Your task to perform on an android device: What's on my calendar tomorrow? Image 0: 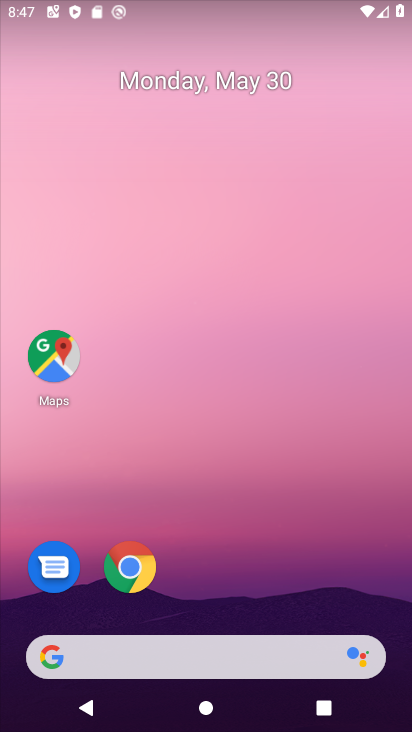
Step 0: click (152, 65)
Your task to perform on an android device: What's on my calendar tomorrow? Image 1: 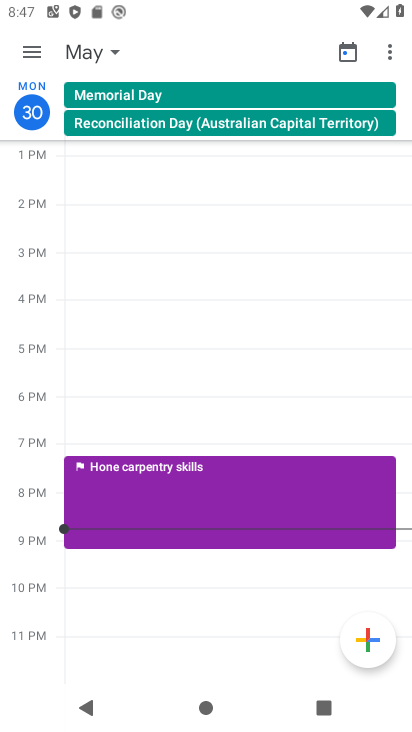
Step 1: click (79, 43)
Your task to perform on an android device: What's on my calendar tomorrow? Image 2: 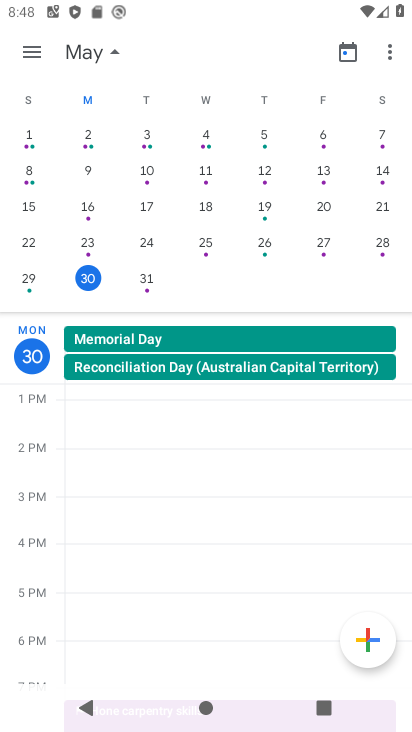
Step 2: click (142, 275)
Your task to perform on an android device: What's on my calendar tomorrow? Image 3: 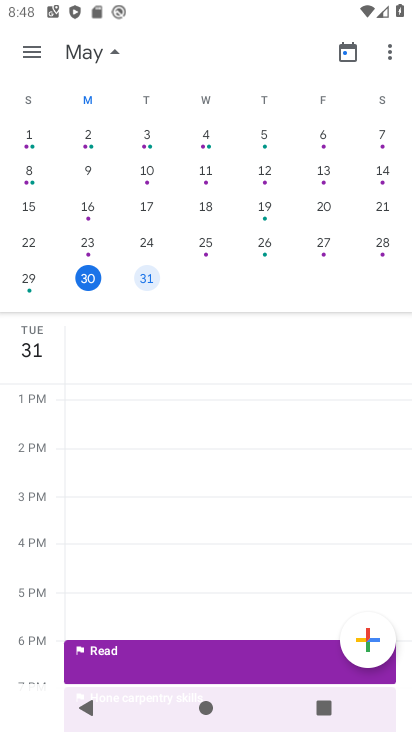
Step 3: task complete